Your task to perform on an android device: Go to wifi settings Image 0: 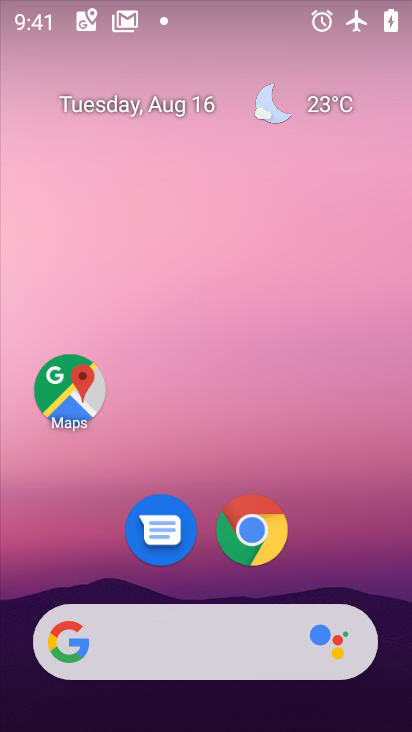
Step 0: drag from (336, 557) to (336, 1)
Your task to perform on an android device: Go to wifi settings Image 1: 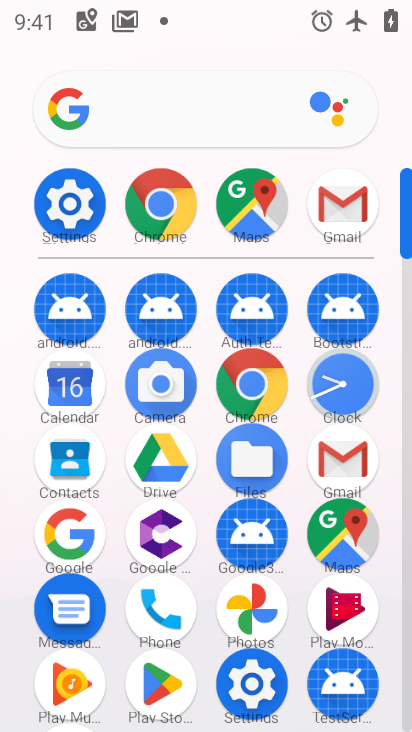
Step 1: click (248, 685)
Your task to perform on an android device: Go to wifi settings Image 2: 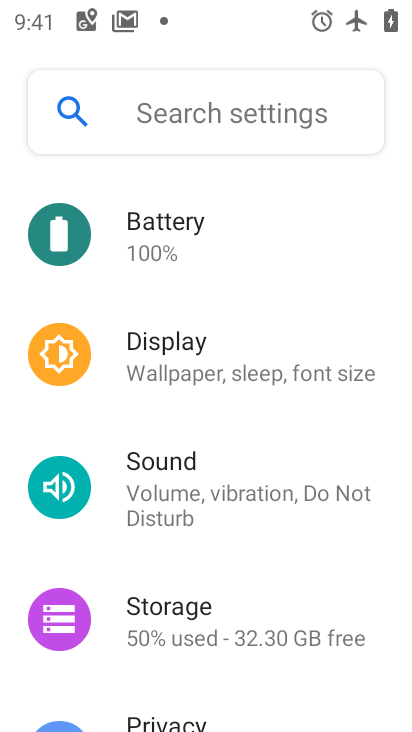
Step 2: drag from (235, 609) to (310, 119)
Your task to perform on an android device: Go to wifi settings Image 3: 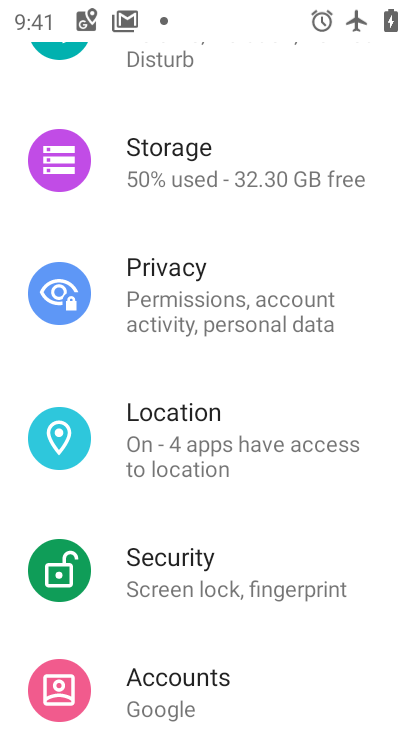
Step 3: drag from (248, 112) to (355, 712)
Your task to perform on an android device: Go to wifi settings Image 4: 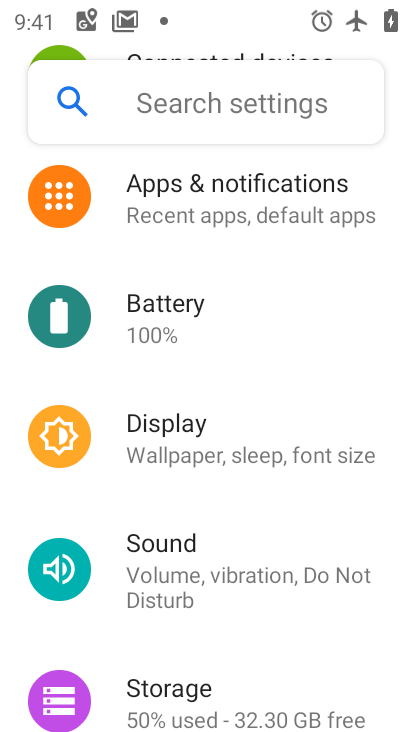
Step 4: drag from (273, 341) to (364, 722)
Your task to perform on an android device: Go to wifi settings Image 5: 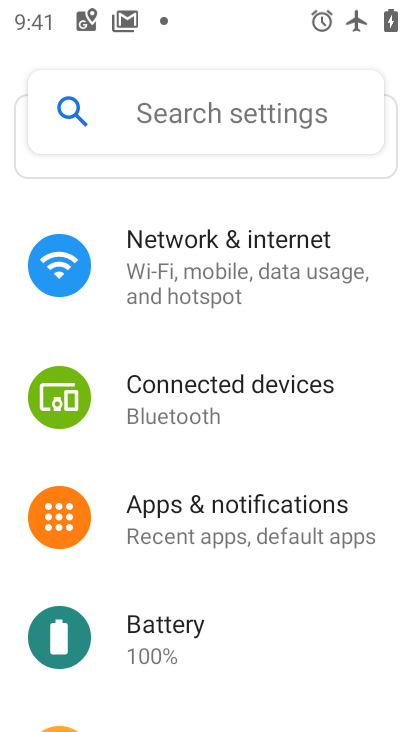
Step 5: click (225, 287)
Your task to perform on an android device: Go to wifi settings Image 6: 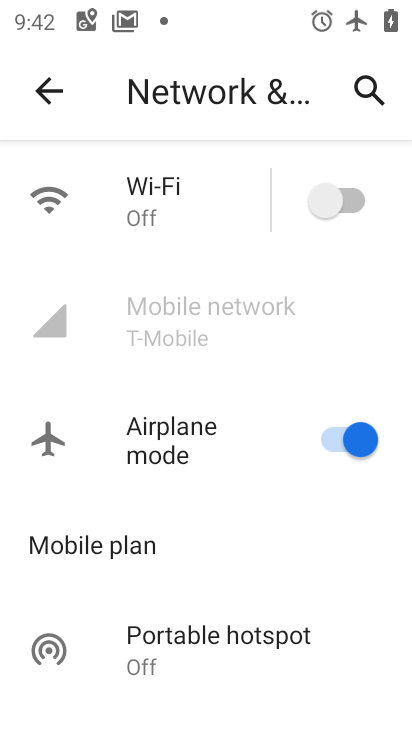
Step 6: click (188, 202)
Your task to perform on an android device: Go to wifi settings Image 7: 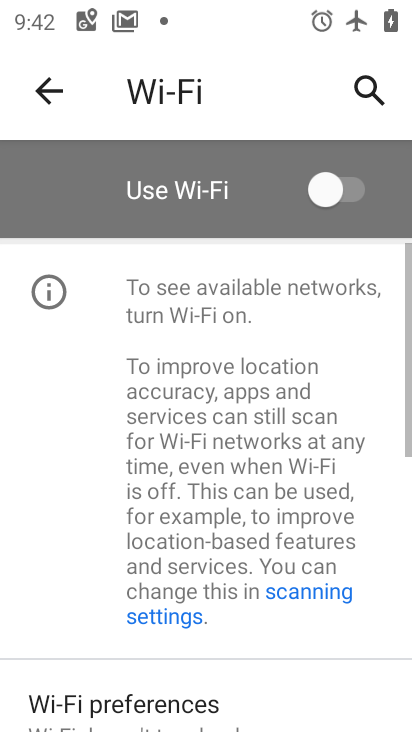
Step 7: click (368, 186)
Your task to perform on an android device: Go to wifi settings Image 8: 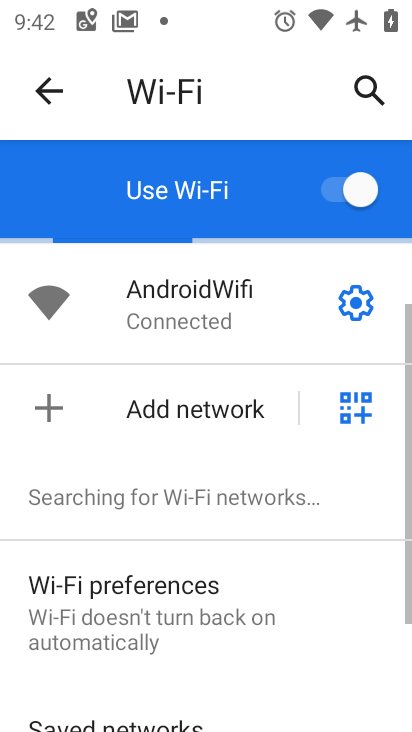
Step 8: click (356, 320)
Your task to perform on an android device: Go to wifi settings Image 9: 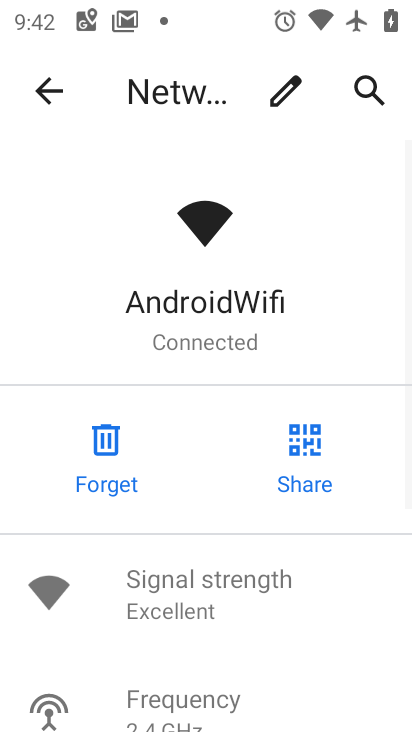
Step 9: task complete